Your task to perform on an android device: open a bookmark in the chrome app Image 0: 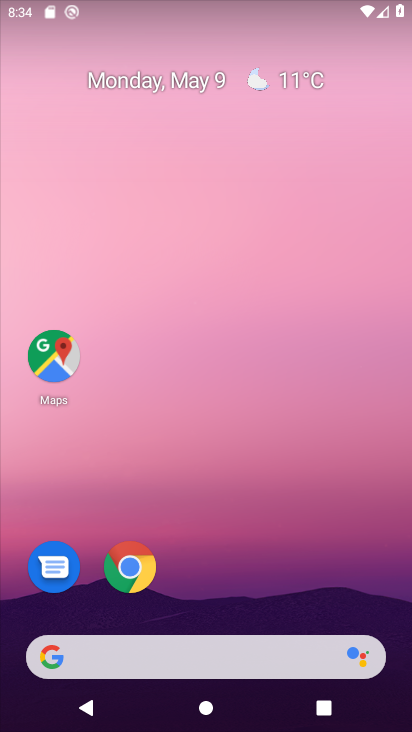
Step 0: click (132, 570)
Your task to perform on an android device: open a bookmark in the chrome app Image 1: 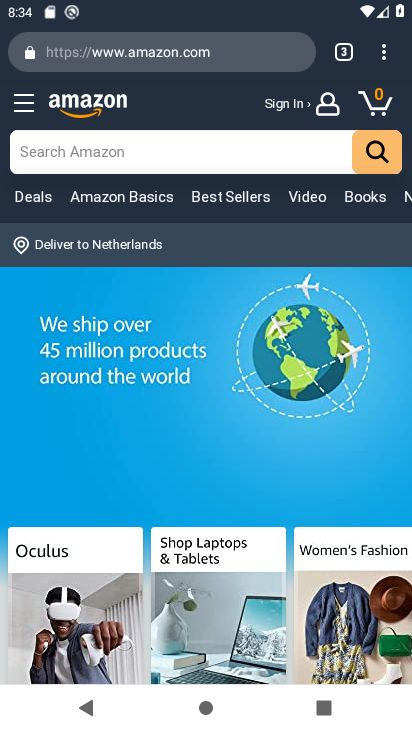
Step 1: click (380, 55)
Your task to perform on an android device: open a bookmark in the chrome app Image 2: 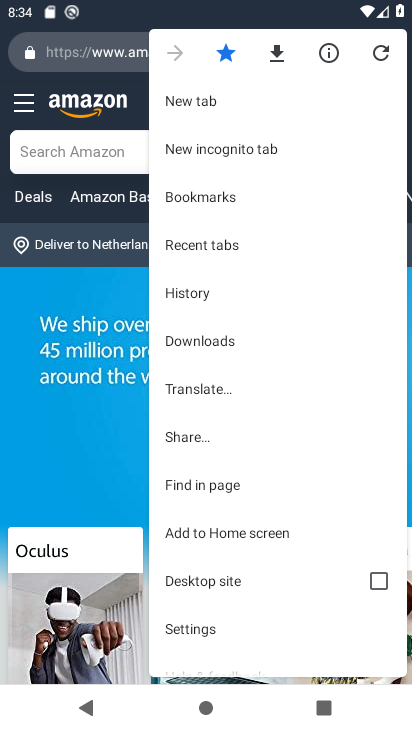
Step 2: click (257, 196)
Your task to perform on an android device: open a bookmark in the chrome app Image 3: 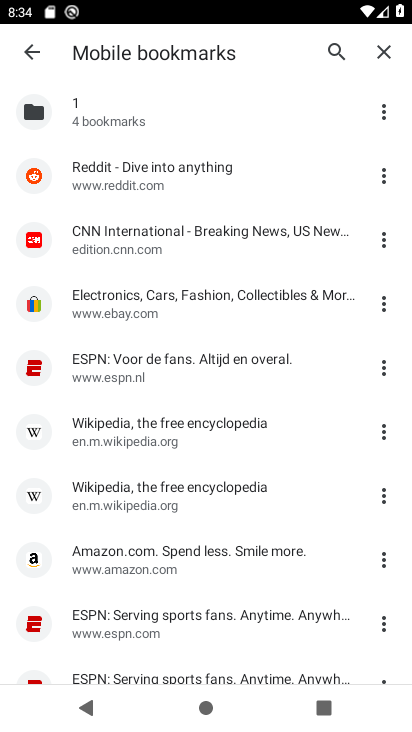
Step 3: click (170, 416)
Your task to perform on an android device: open a bookmark in the chrome app Image 4: 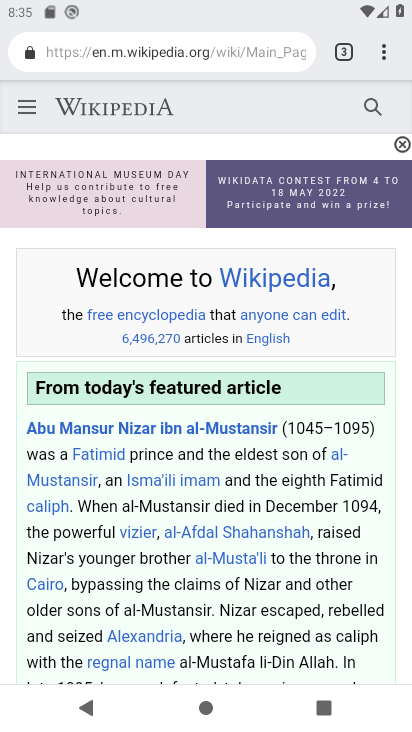
Step 4: task complete